Your task to perform on an android device: change the clock display to digital Image 0: 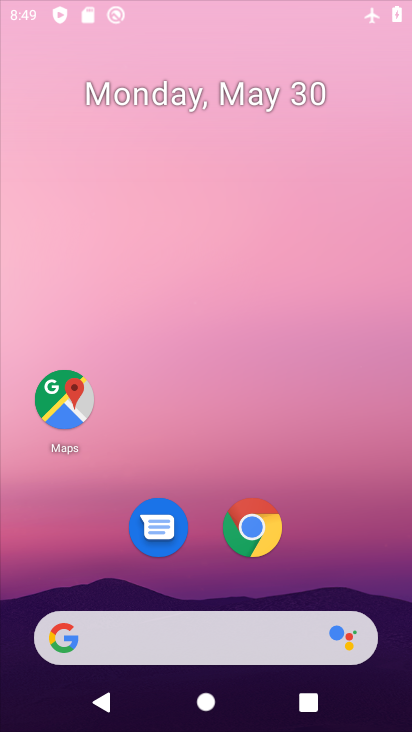
Step 0: press home button
Your task to perform on an android device: change the clock display to digital Image 1: 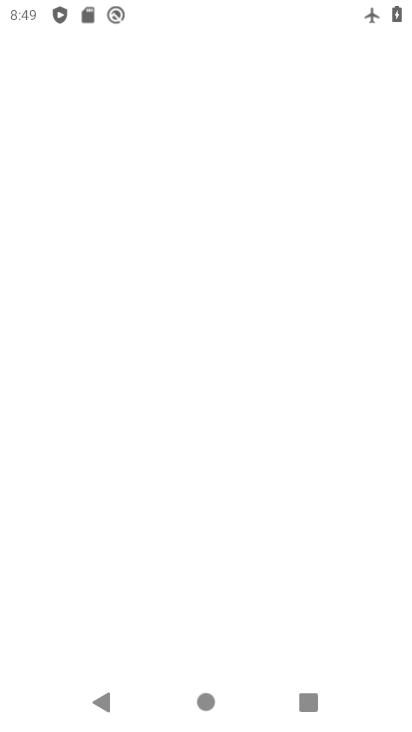
Step 1: drag from (137, 597) to (242, 1)
Your task to perform on an android device: change the clock display to digital Image 2: 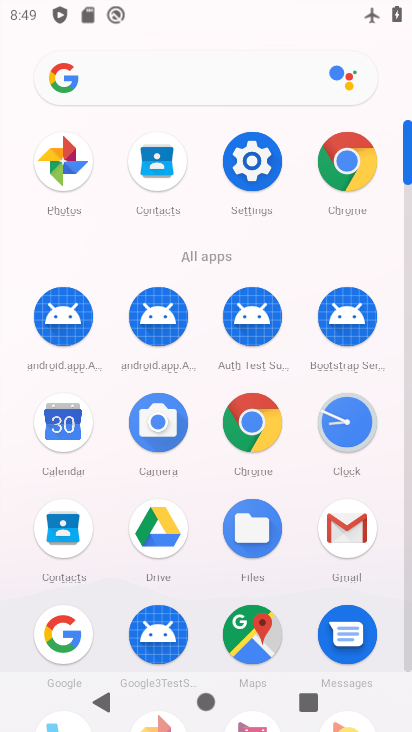
Step 2: click (260, 152)
Your task to perform on an android device: change the clock display to digital Image 3: 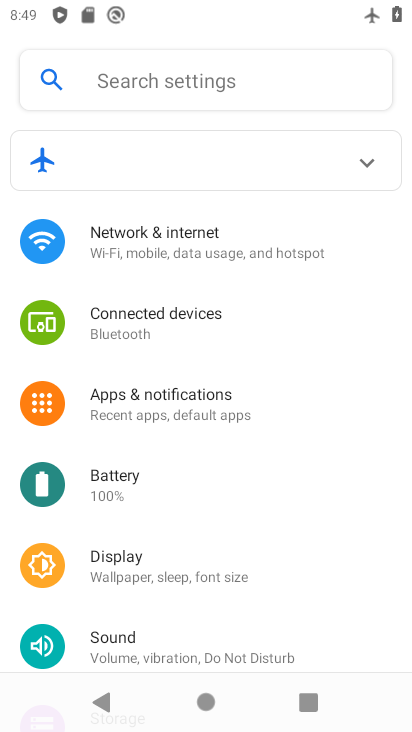
Step 3: press home button
Your task to perform on an android device: change the clock display to digital Image 4: 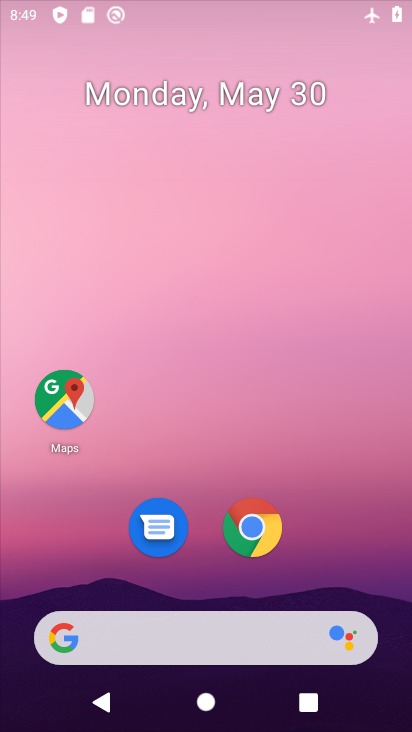
Step 4: drag from (258, 678) to (249, 0)
Your task to perform on an android device: change the clock display to digital Image 5: 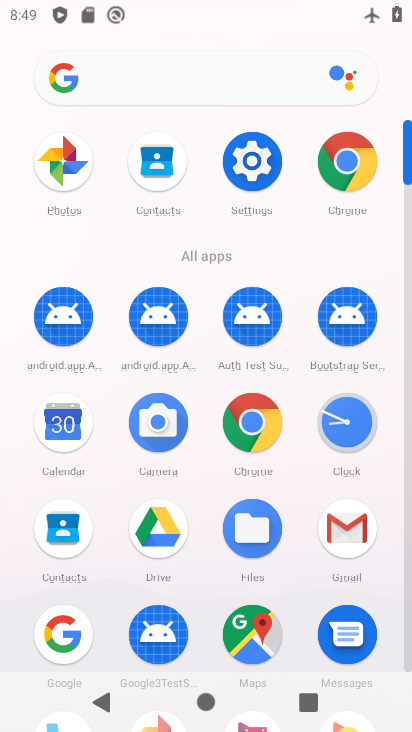
Step 5: click (327, 416)
Your task to perform on an android device: change the clock display to digital Image 6: 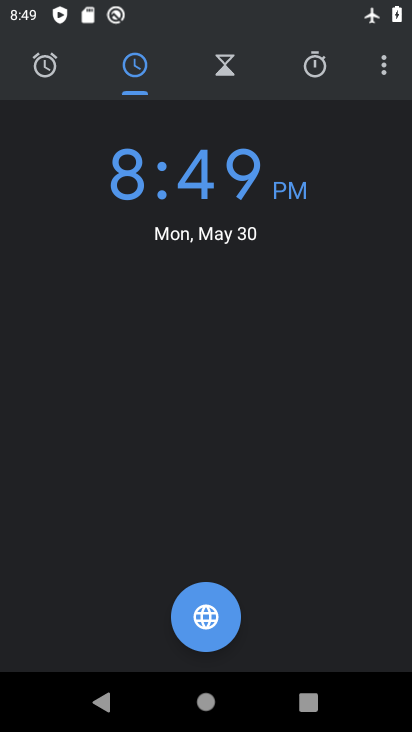
Step 6: click (379, 53)
Your task to perform on an android device: change the clock display to digital Image 7: 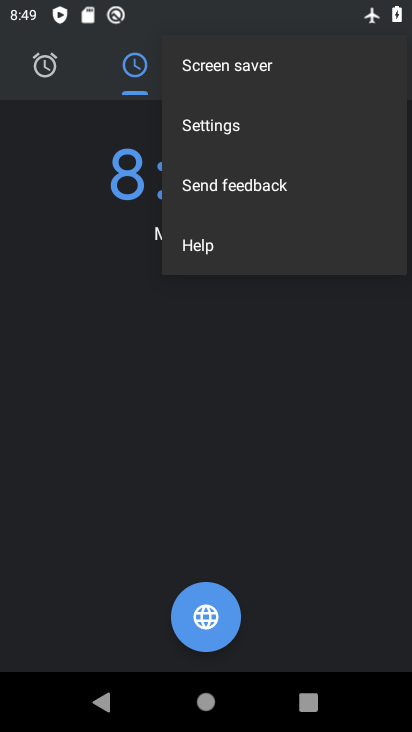
Step 7: click (274, 131)
Your task to perform on an android device: change the clock display to digital Image 8: 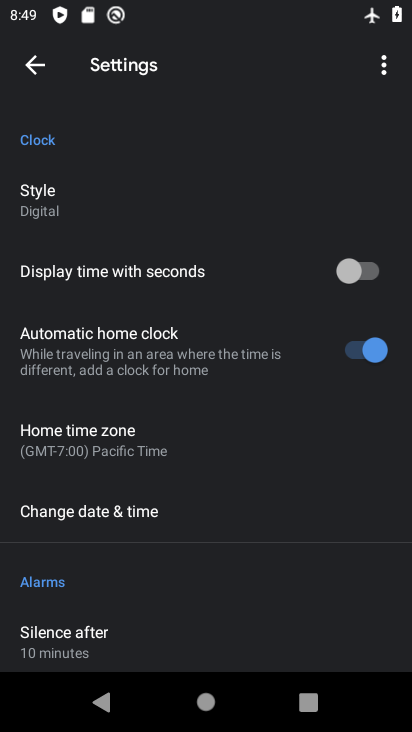
Step 8: task complete